Your task to perform on an android device: set an alarm Image 0: 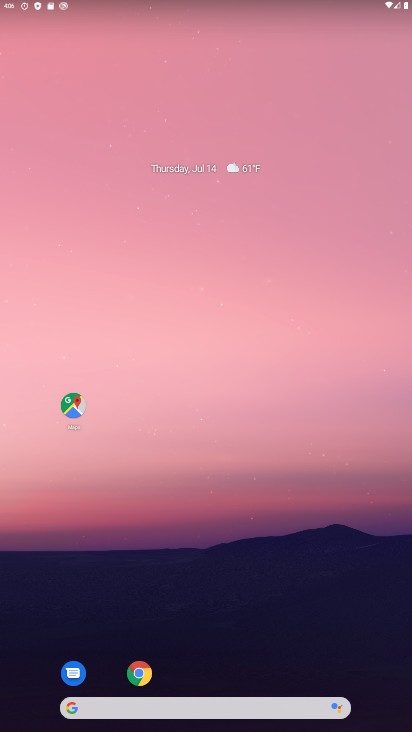
Step 0: drag from (223, 681) to (207, 10)
Your task to perform on an android device: set an alarm Image 1: 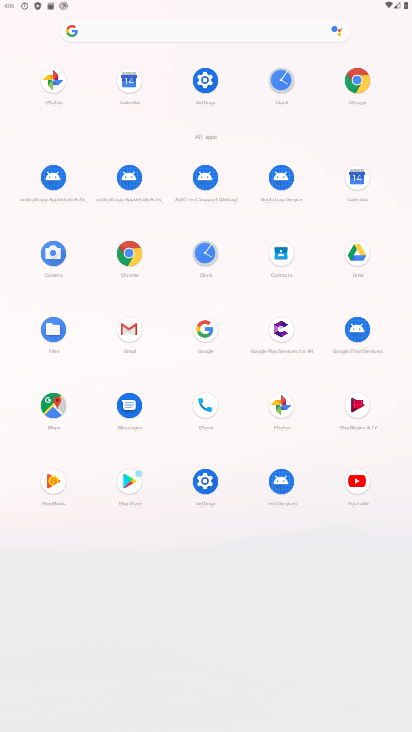
Step 1: click (198, 254)
Your task to perform on an android device: set an alarm Image 2: 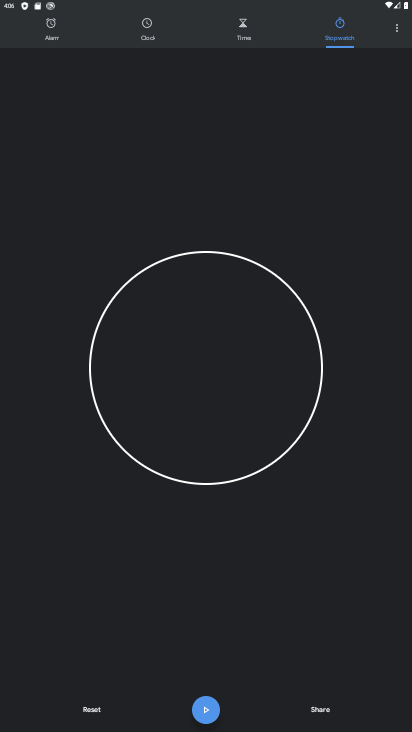
Step 2: click (48, 21)
Your task to perform on an android device: set an alarm Image 3: 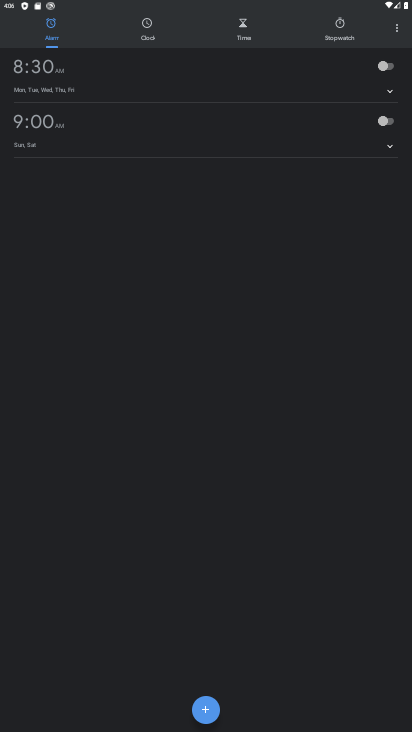
Step 3: click (201, 712)
Your task to perform on an android device: set an alarm Image 4: 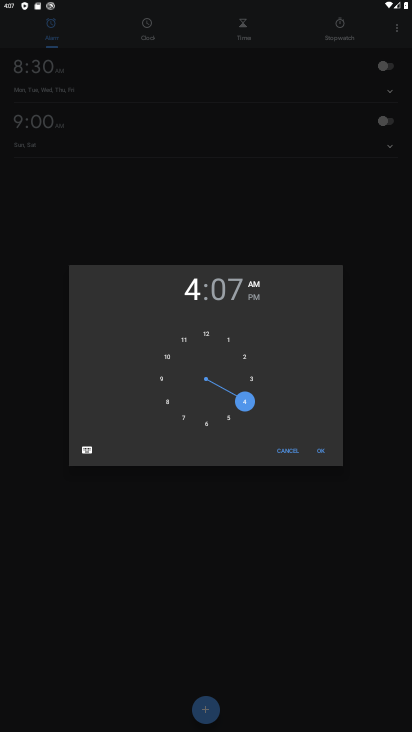
Step 4: click (320, 446)
Your task to perform on an android device: set an alarm Image 5: 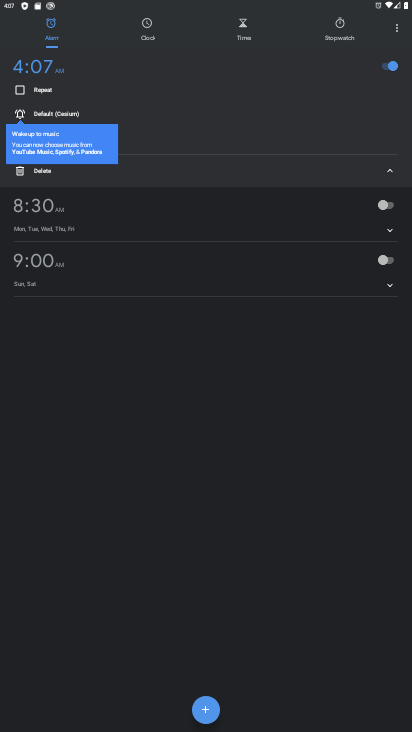
Step 5: task complete